Your task to perform on an android device: turn off location Image 0: 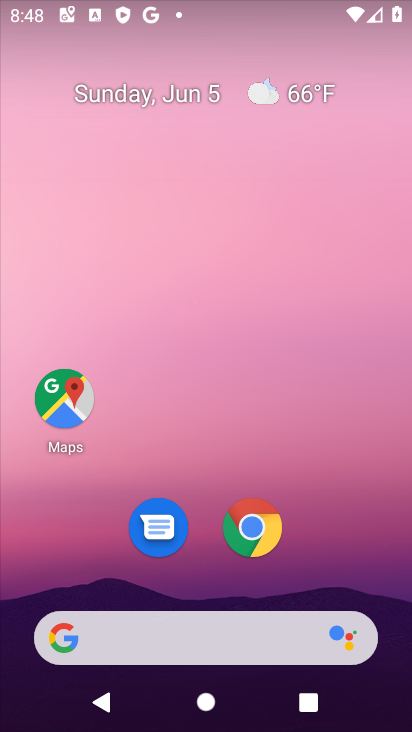
Step 0: drag from (205, 584) to (246, 79)
Your task to perform on an android device: turn off location Image 1: 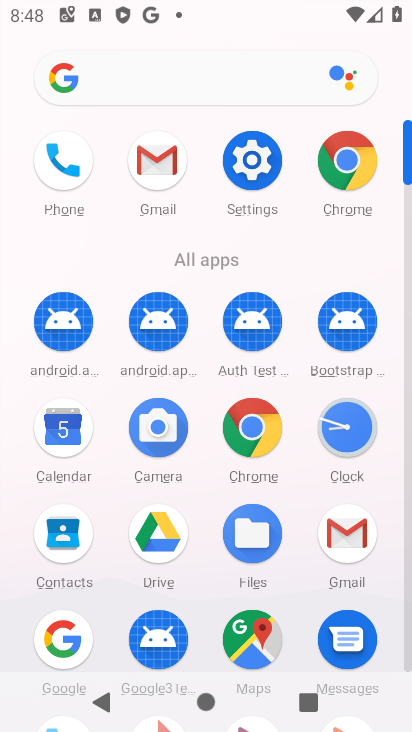
Step 1: click (255, 152)
Your task to perform on an android device: turn off location Image 2: 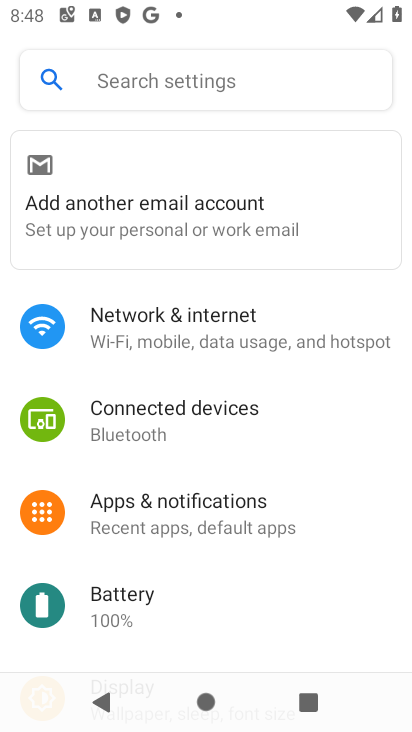
Step 2: drag from (134, 638) to (183, 254)
Your task to perform on an android device: turn off location Image 3: 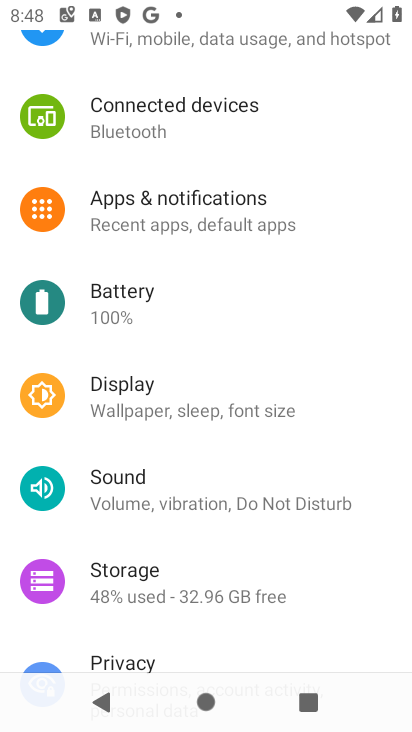
Step 3: drag from (103, 657) to (212, 113)
Your task to perform on an android device: turn off location Image 4: 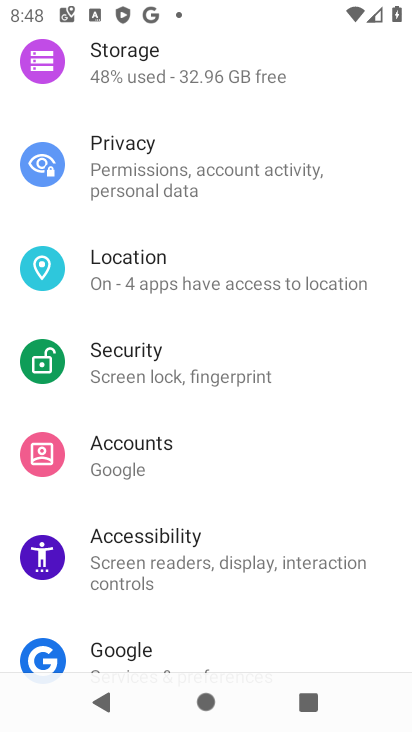
Step 4: click (176, 250)
Your task to perform on an android device: turn off location Image 5: 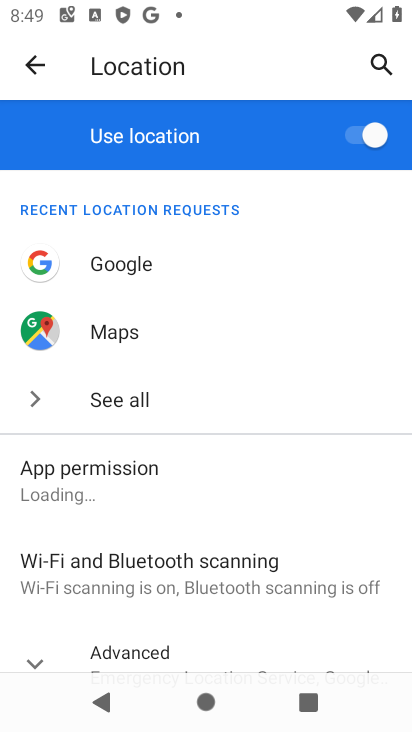
Step 5: click (359, 139)
Your task to perform on an android device: turn off location Image 6: 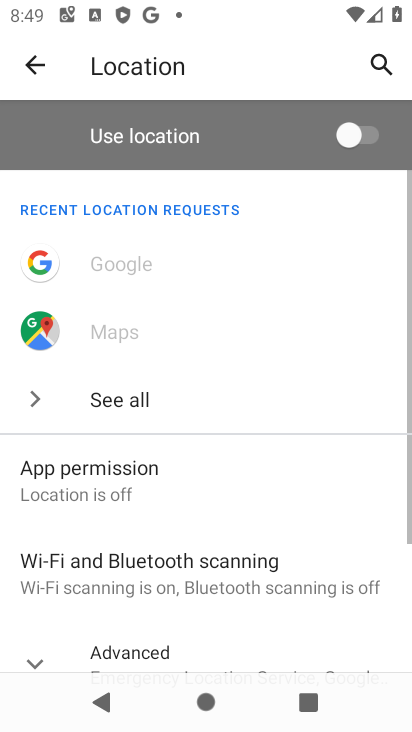
Step 6: task complete